Your task to perform on an android device: Open accessibility settings Image 0: 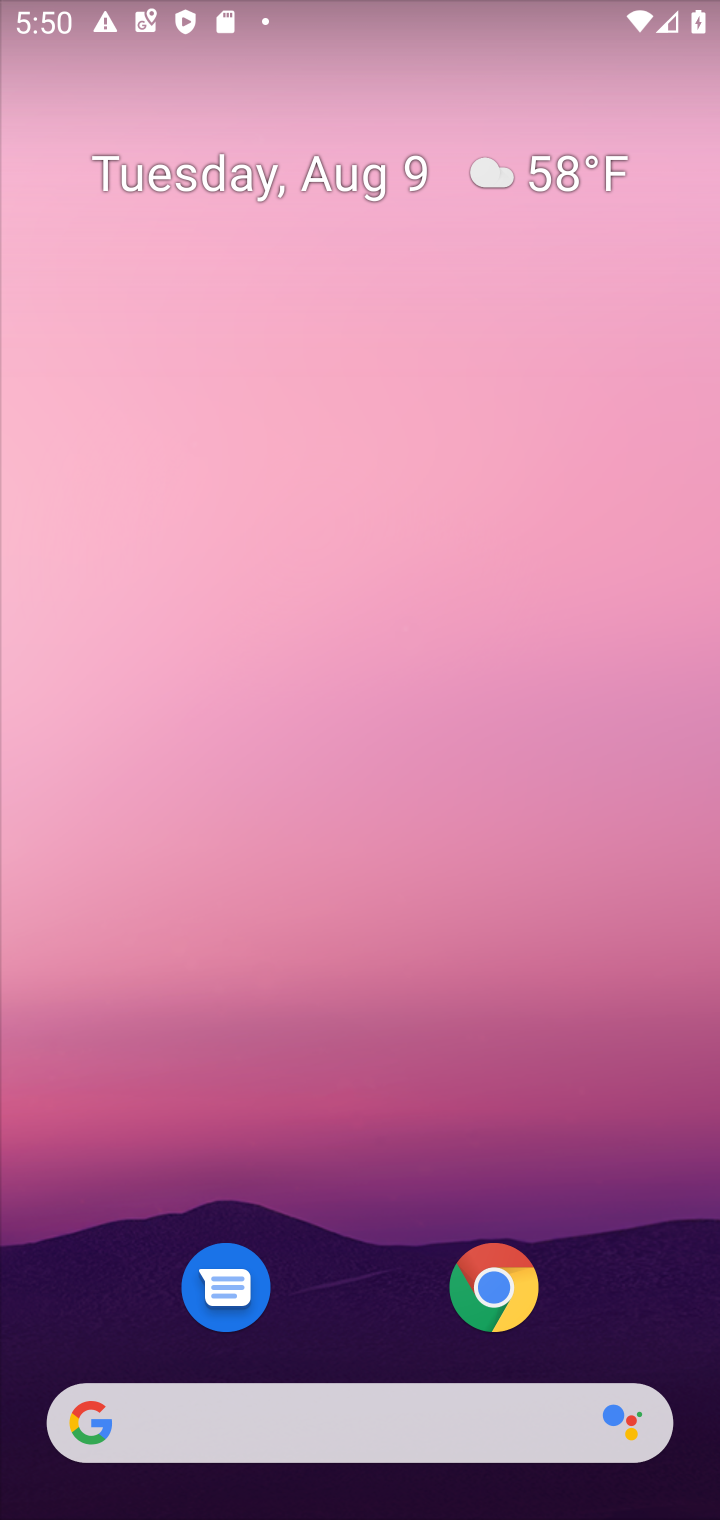
Step 0: drag from (364, 1148) to (339, 237)
Your task to perform on an android device: Open accessibility settings Image 1: 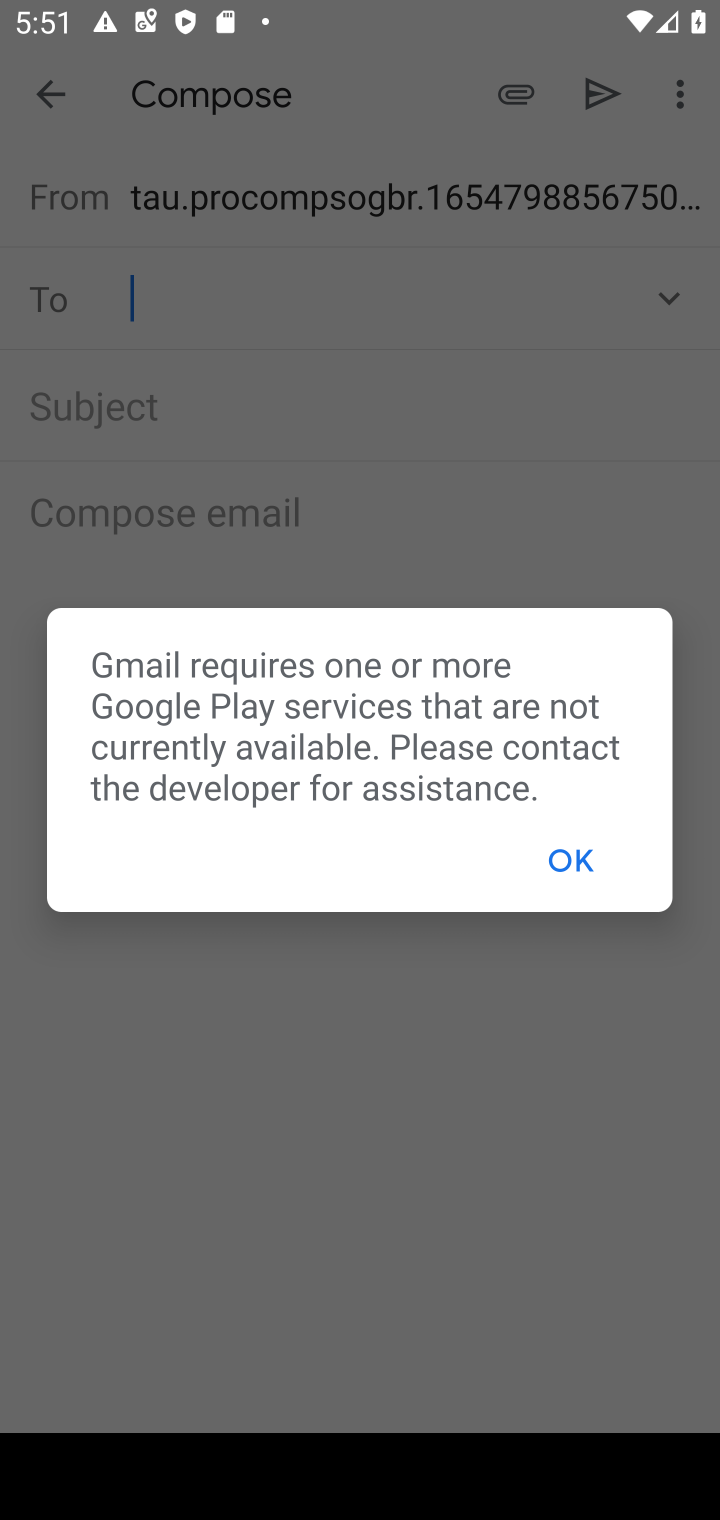
Step 1: press home button
Your task to perform on an android device: Open accessibility settings Image 2: 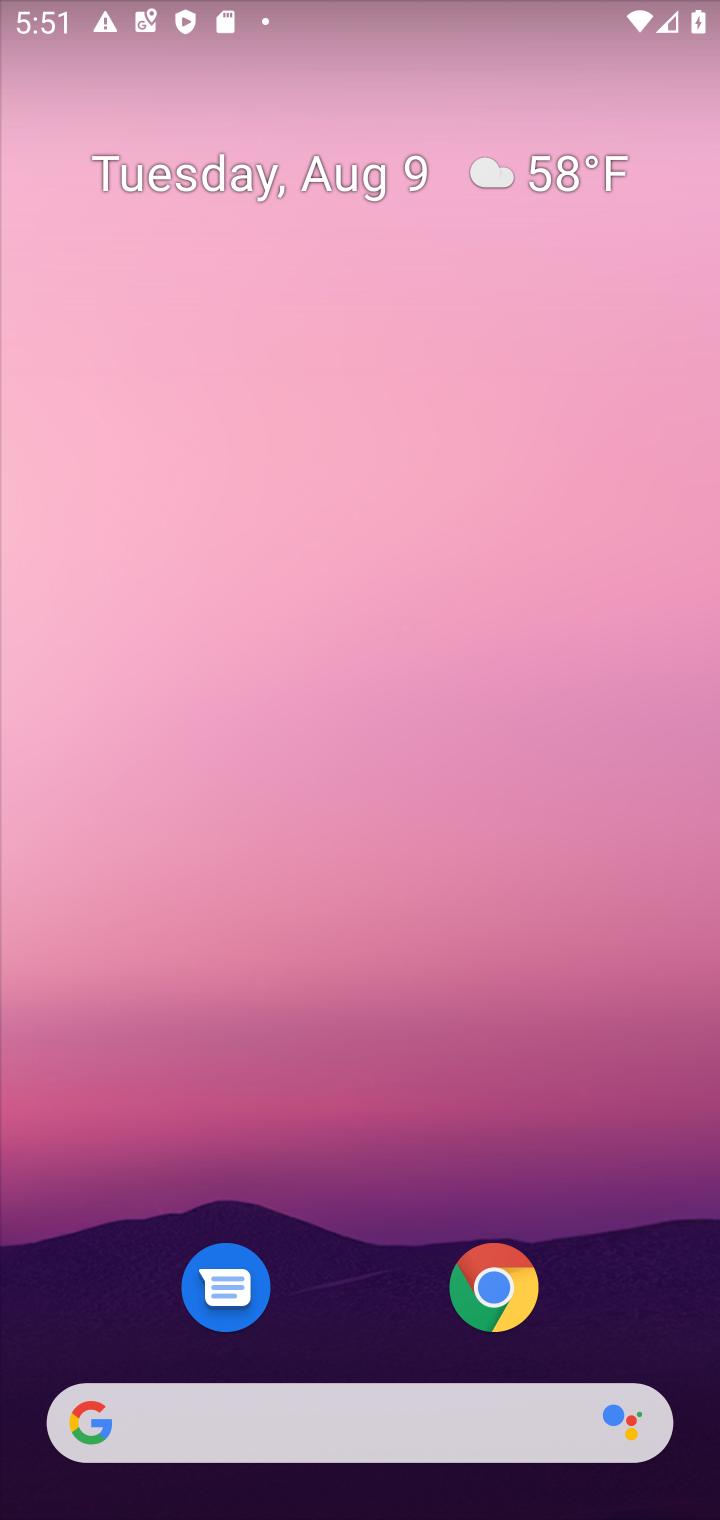
Step 2: drag from (385, 1081) to (299, 442)
Your task to perform on an android device: Open accessibility settings Image 3: 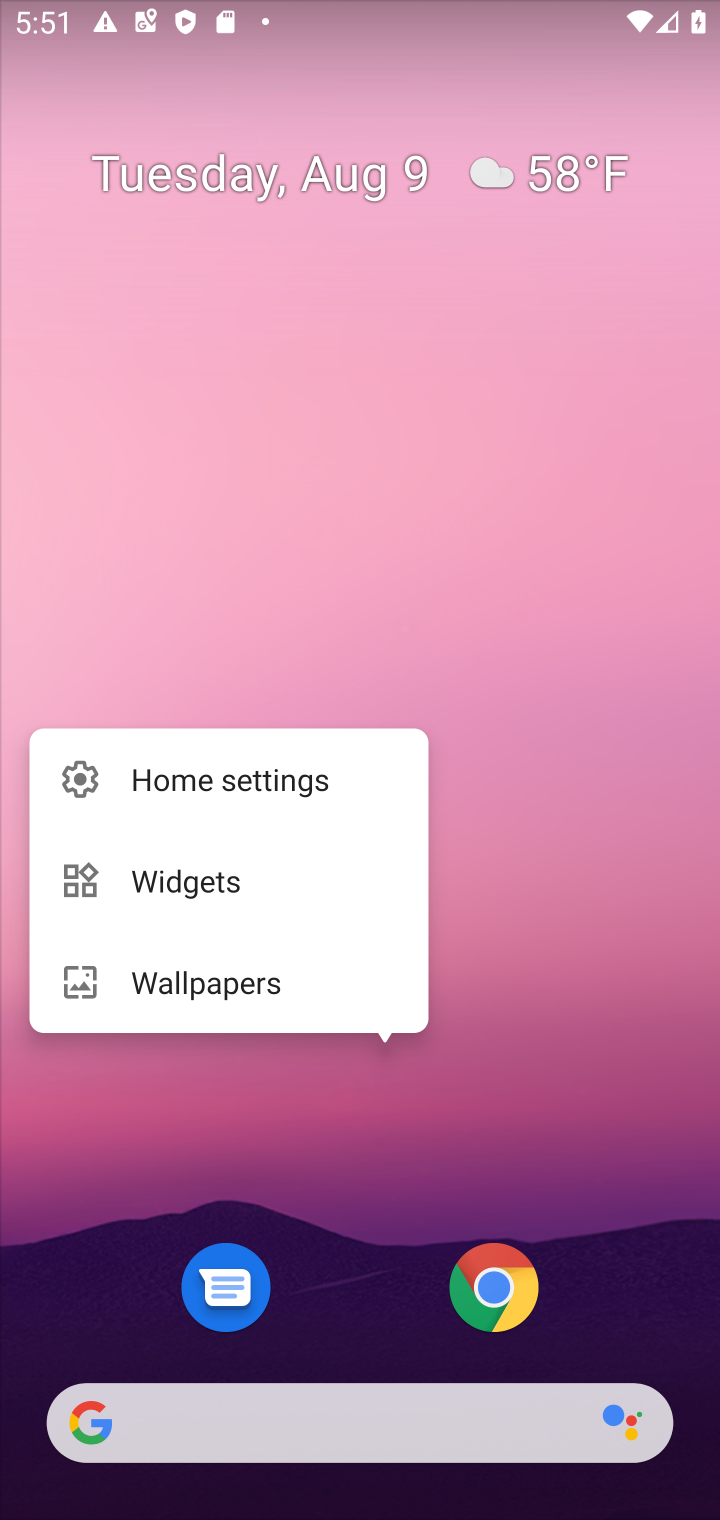
Step 3: click (548, 1125)
Your task to perform on an android device: Open accessibility settings Image 4: 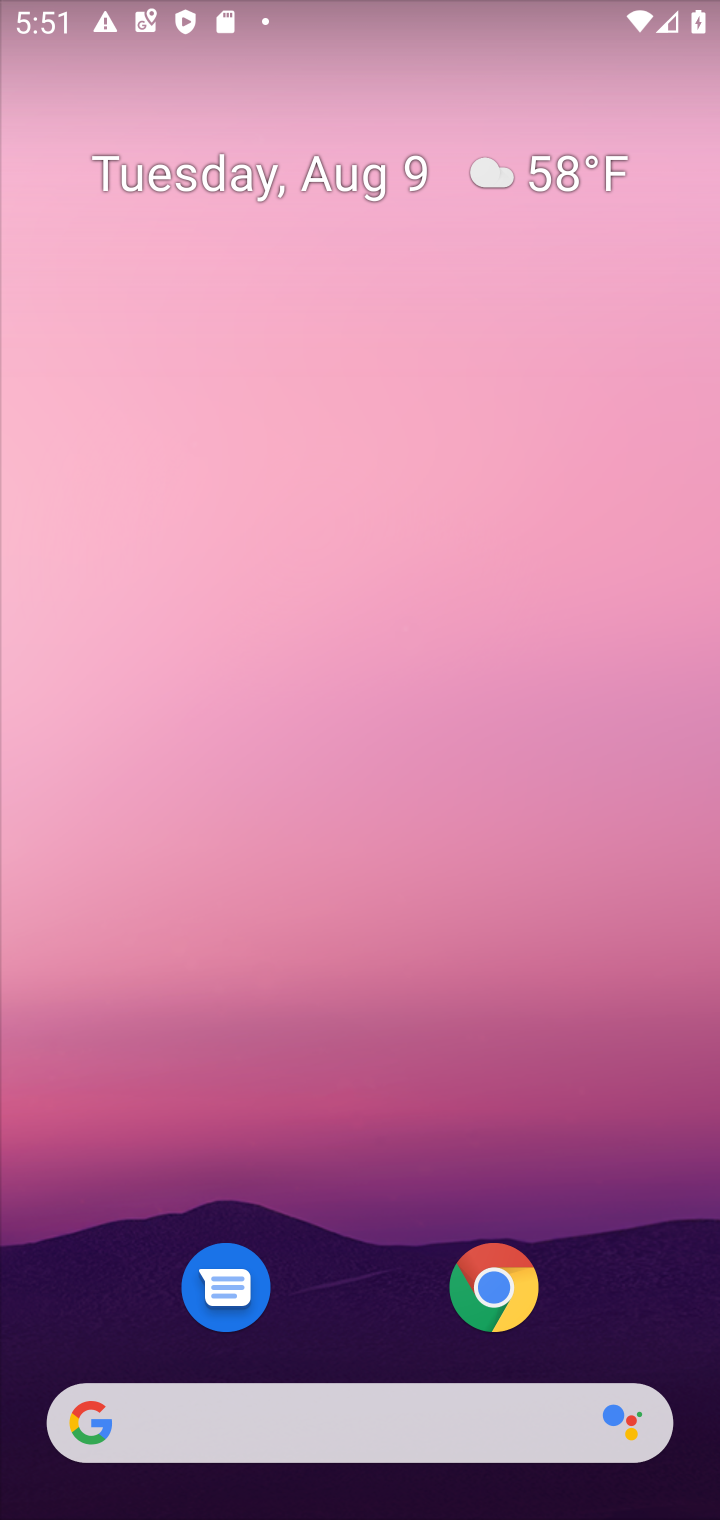
Step 4: drag from (406, 1150) to (394, 152)
Your task to perform on an android device: Open accessibility settings Image 5: 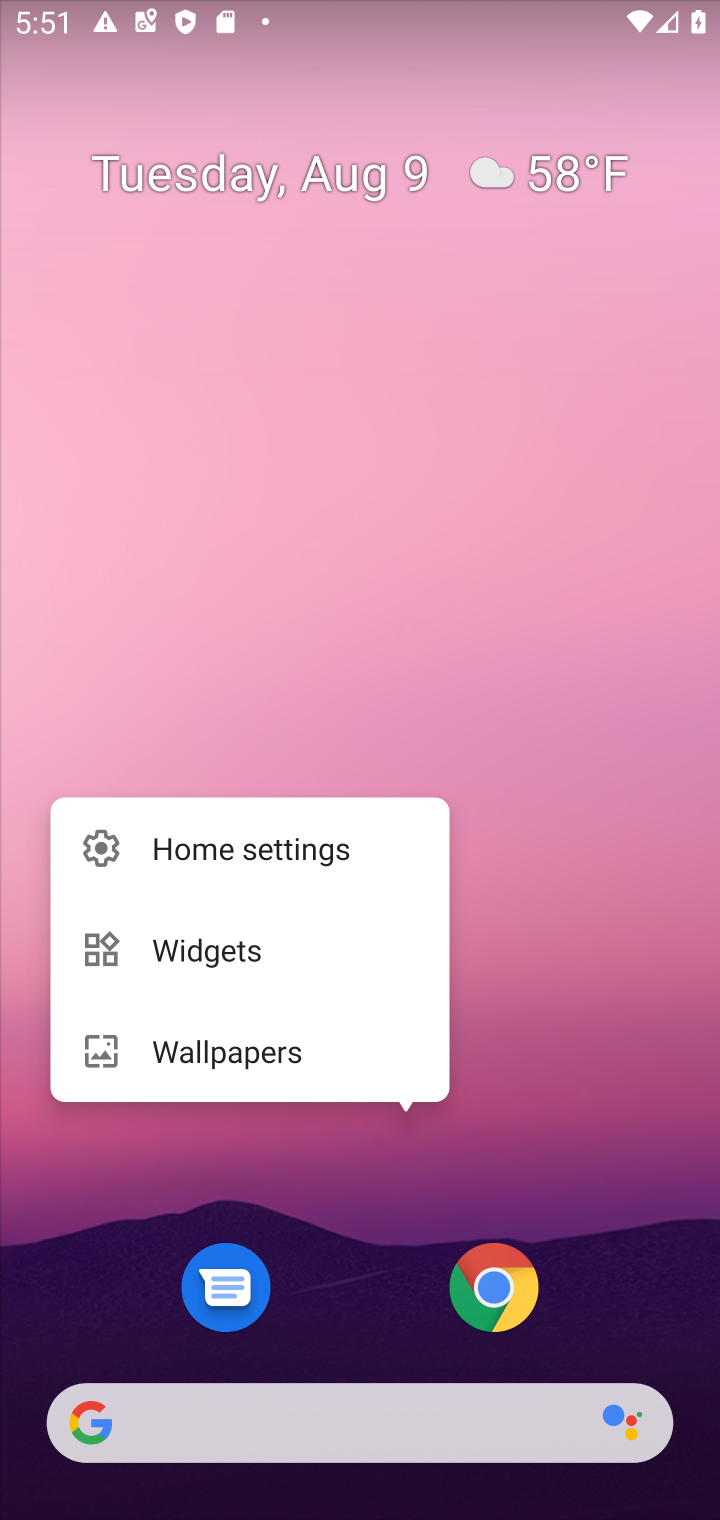
Step 5: click (515, 1182)
Your task to perform on an android device: Open accessibility settings Image 6: 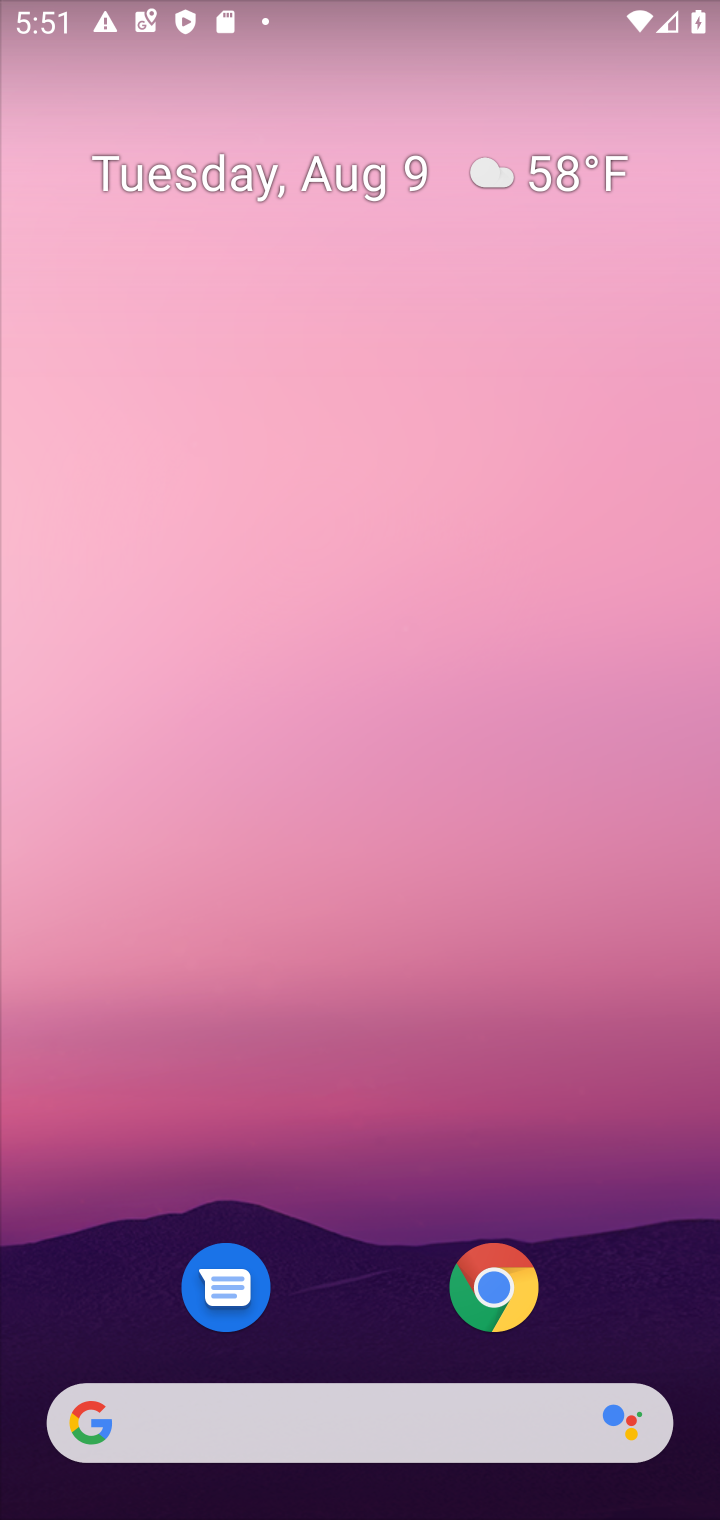
Step 6: drag from (364, 1145) to (315, 291)
Your task to perform on an android device: Open accessibility settings Image 7: 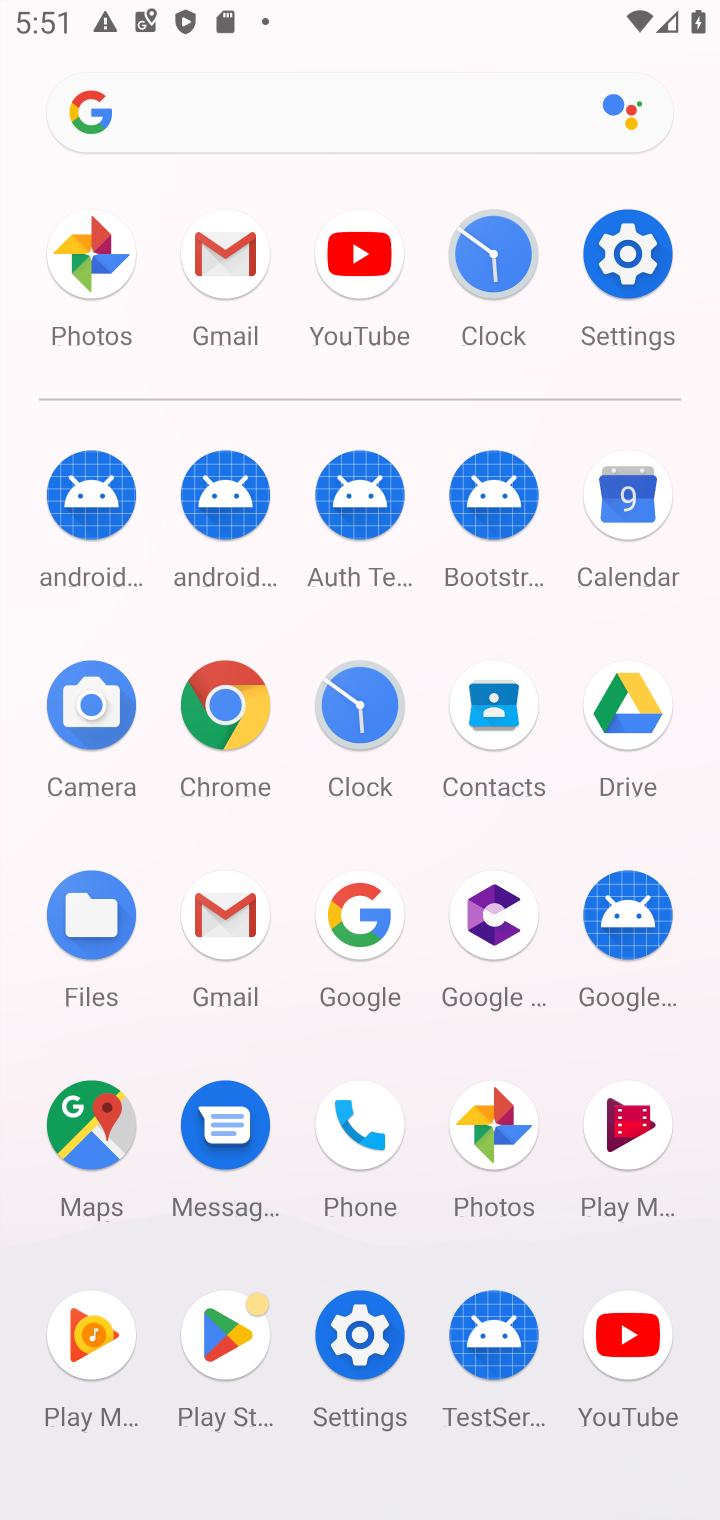
Step 7: click (620, 256)
Your task to perform on an android device: Open accessibility settings Image 8: 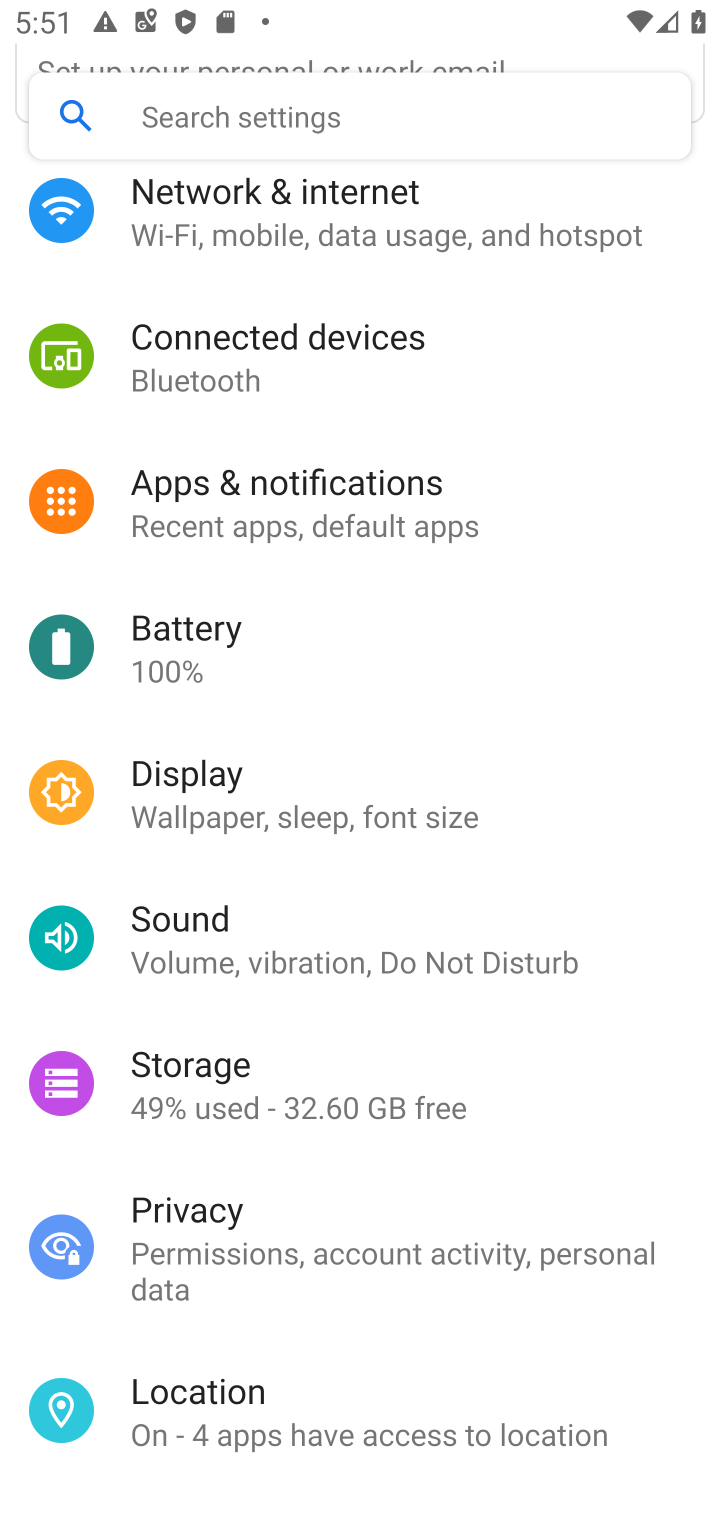
Step 8: drag from (413, 787) to (16, 32)
Your task to perform on an android device: Open accessibility settings Image 9: 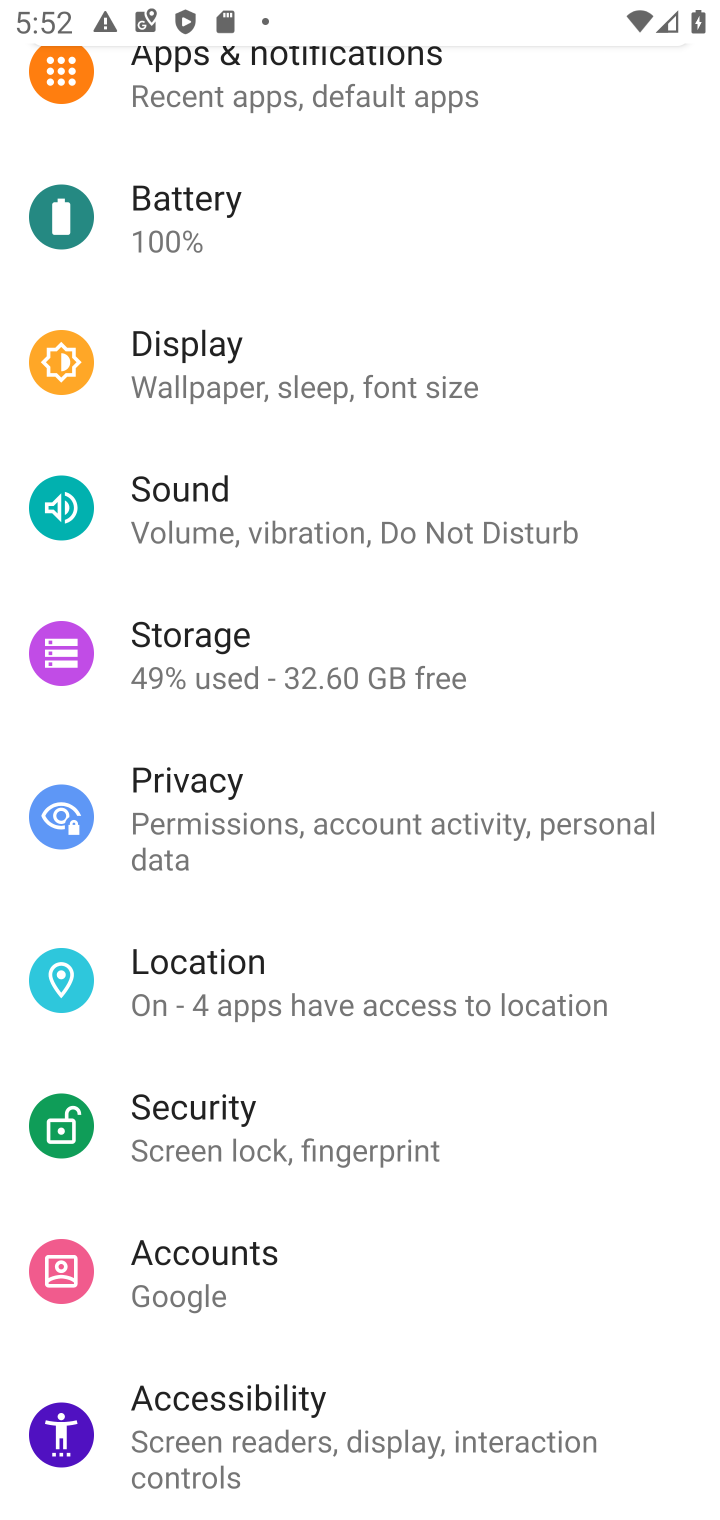
Step 9: click (206, 1420)
Your task to perform on an android device: Open accessibility settings Image 10: 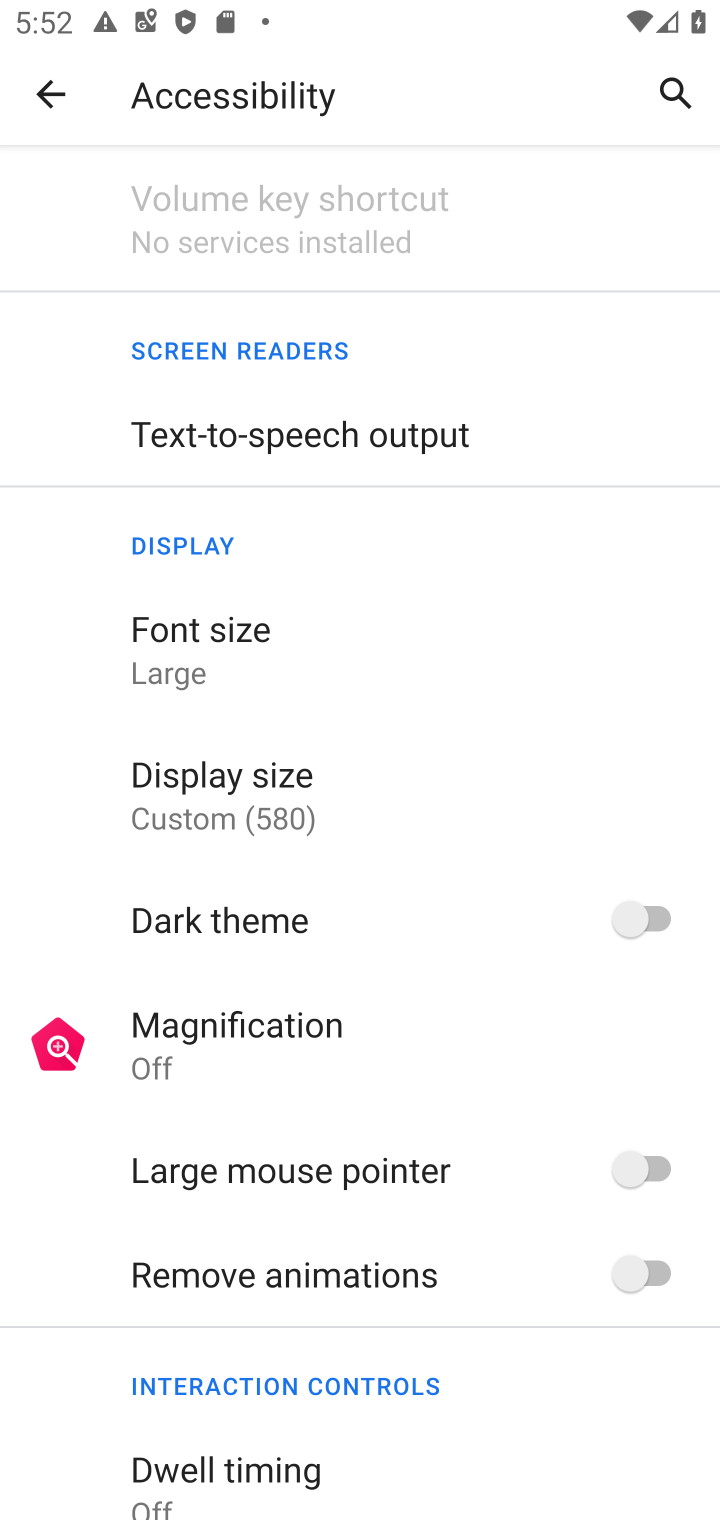
Step 10: task complete